Your task to perform on an android device: Show the shopping cart on amazon.com. Image 0: 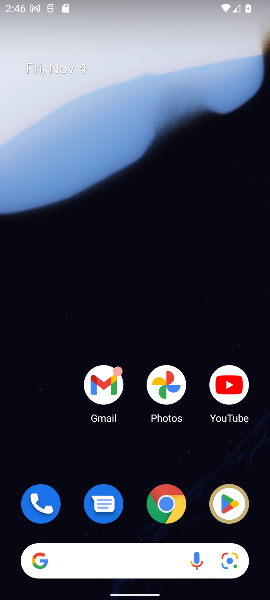
Step 0: click (170, 511)
Your task to perform on an android device: Show the shopping cart on amazon.com. Image 1: 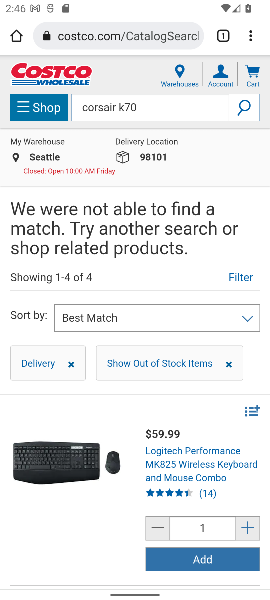
Step 1: click (116, 39)
Your task to perform on an android device: Show the shopping cart on amazon.com. Image 2: 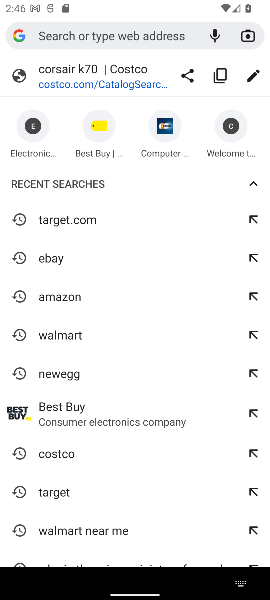
Step 2: click (65, 296)
Your task to perform on an android device: Show the shopping cart on amazon.com. Image 3: 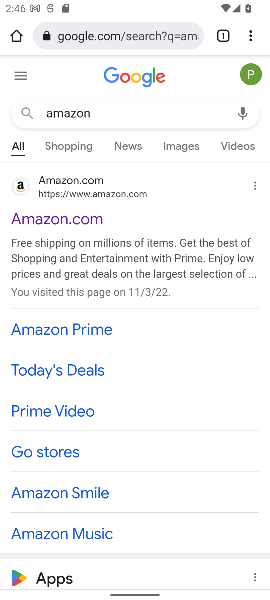
Step 3: click (61, 229)
Your task to perform on an android device: Show the shopping cart on amazon.com. Image 4: 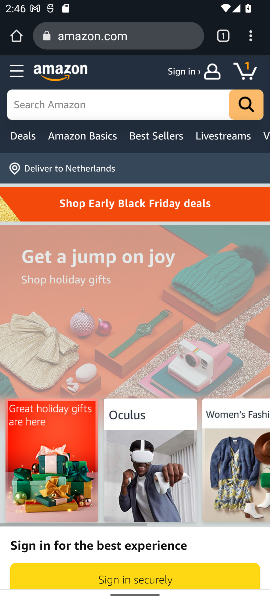
Step 4: click (245, 72)
Your task to perform on an android device: Show the shopping cart on amazon.com. Image 5: 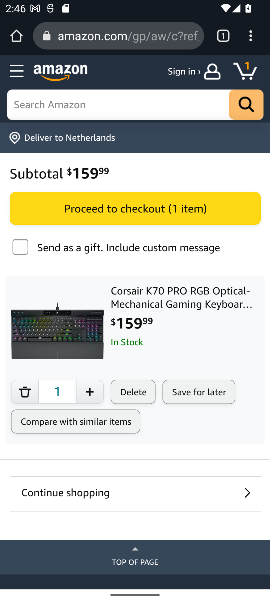
Step 5: task complete